Your task to perform on an android device: change text size in settings app Image 0: 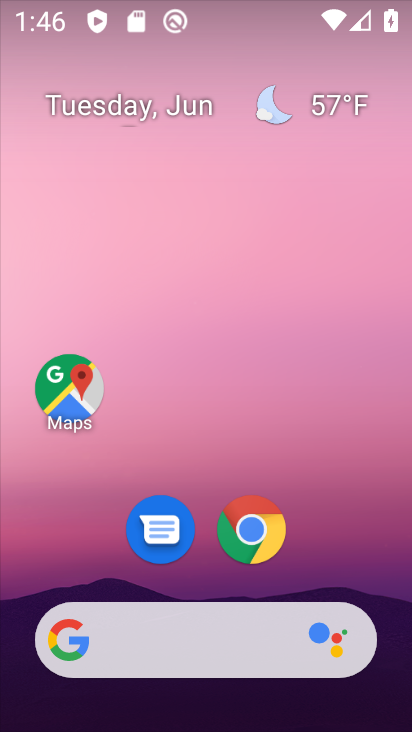
Step 0: drag from (296, 522) to (266, 89)
Your task to perform on an android device: change text size in settings app Image 1: 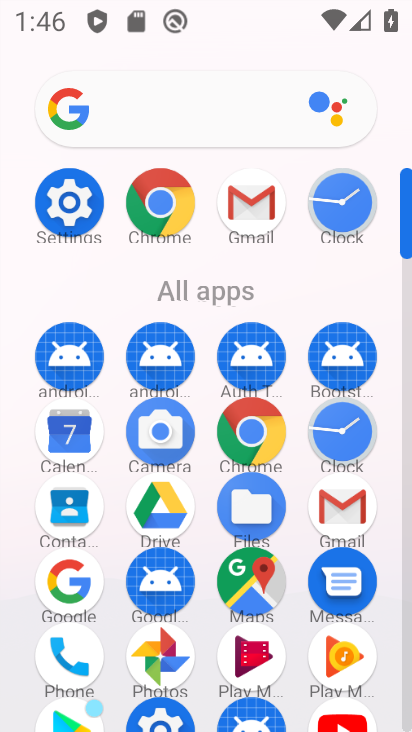
Step 1: click (63, 194)
Your task to perform on an android device: change text size in settings app Image 2: 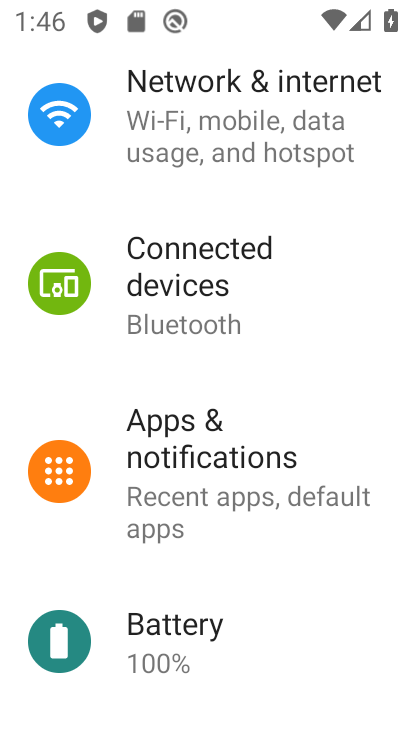
Step 2: drag from (223, 541) to (242, 501)
Your task to perform on an android device: change text size in settings app Image 3: 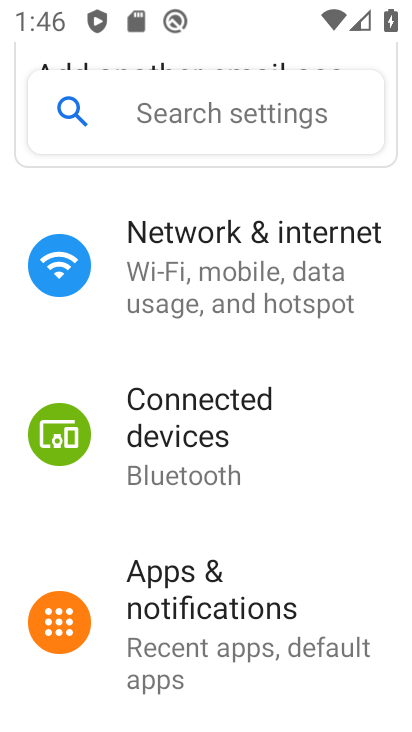
Step 3: drag from (262, 565) to (241, 186)
Your task to perform on an android device: change text size in settings app Image 4: 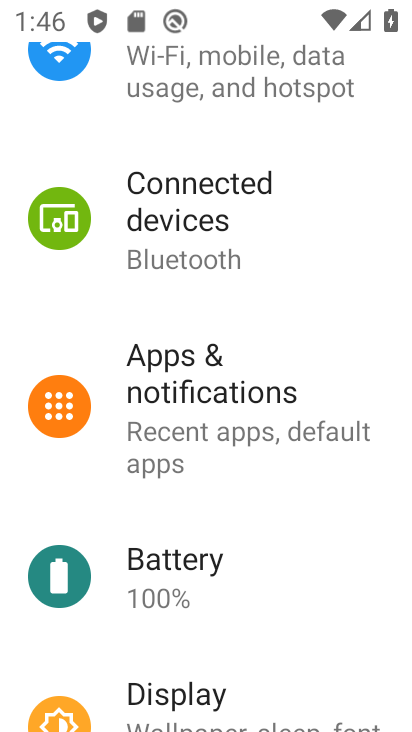
Step 4: drag from (215, 639) to (196, 191)
Your task to perform on an android device: change text size in settings app Image 5: 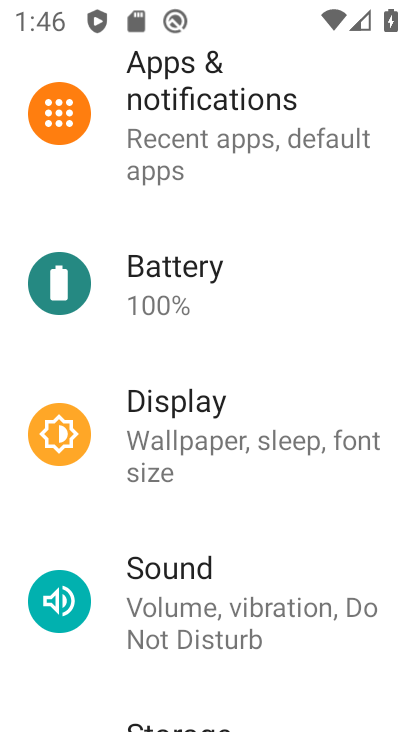
Step 5: click (186, 429)
Your task to perform on an android device: change text size in settings app Image 6: 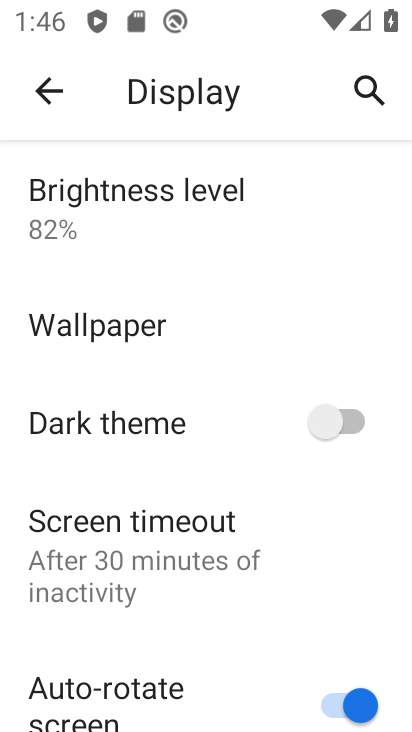
Step 6: drag from (212, 643) to (204, 164)
Your task to perform on an android device: change text size in settings app Image 7: 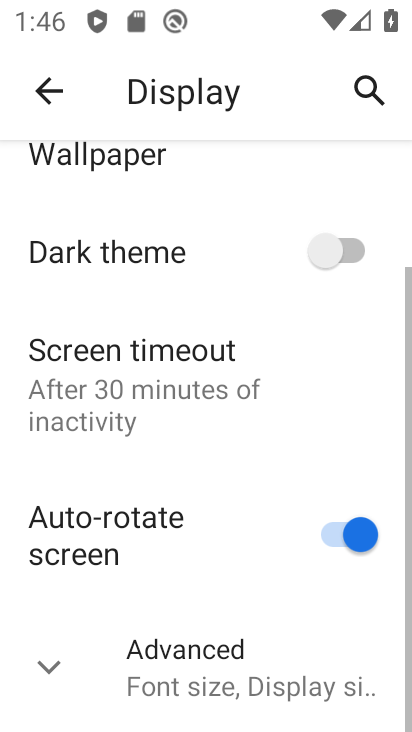
Step 7: click (152, 691)
Your task to perform on an android device: change text size in settings app Image 8: 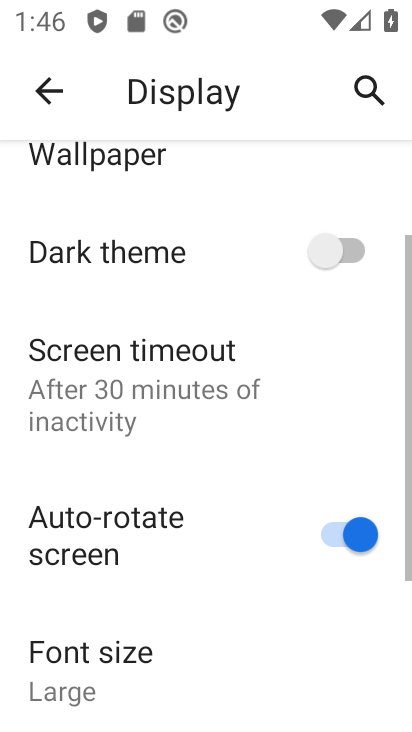
Step 8: click (159, 679)
Your task to perform on an android device: change text size in settings app Image 9: 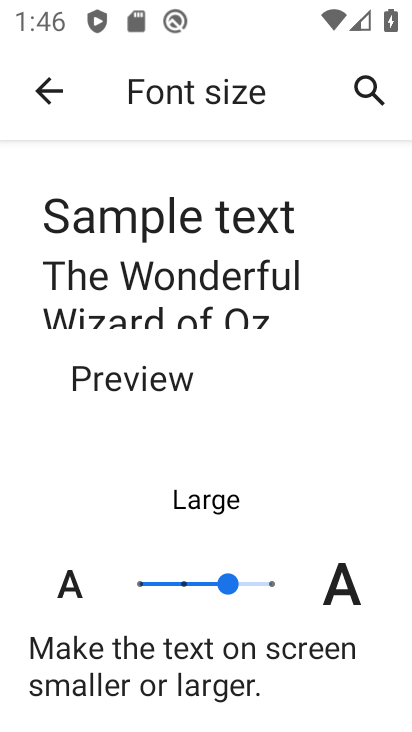
Step 9: task complete